Your task to perform on an android device: Go to Android settings Image 0: 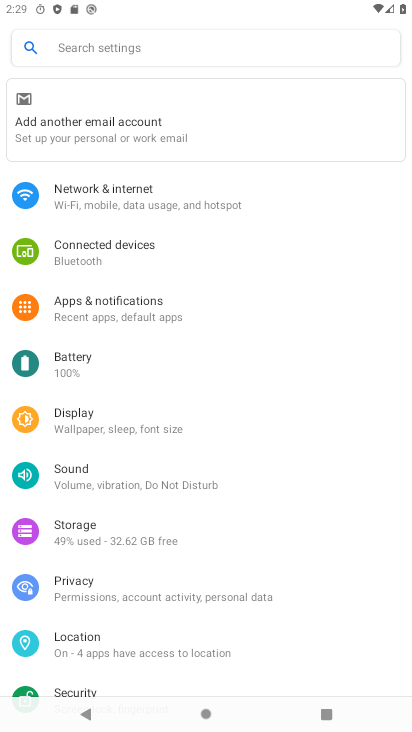
Step 0: drag from (135, 423) to (124, 78)
Your task to perform on an android device: Go to Android settings Image 1: 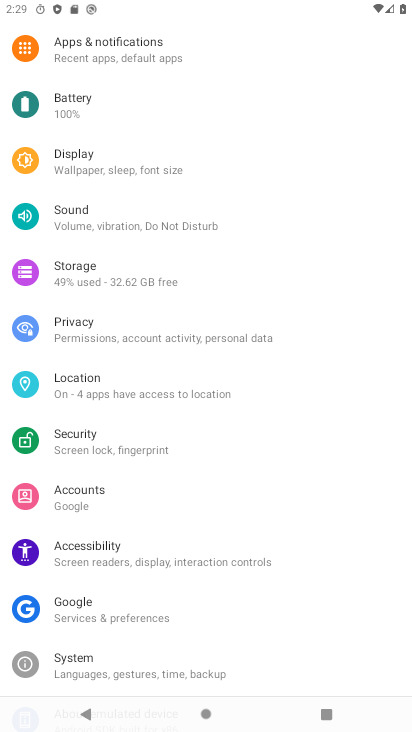
Step 1: drag from (142, 428) to (130, 111)
Your task to perform on an android device: Go to Android settings Image 2: 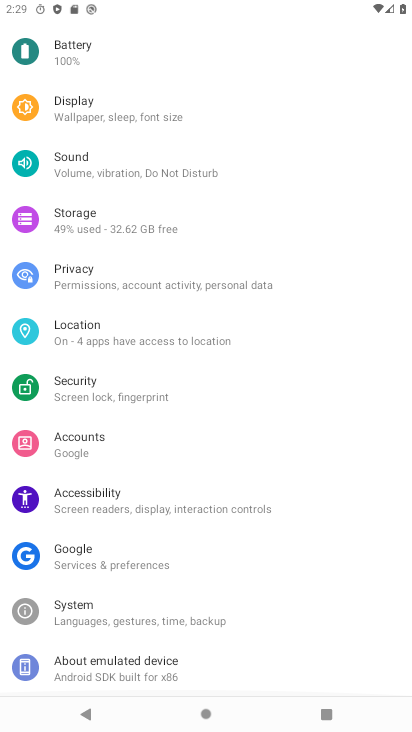
Step 2: drag from (137, 422) to (109, 24)
Your task to perform on an android device: Go to Android settings Image 3: 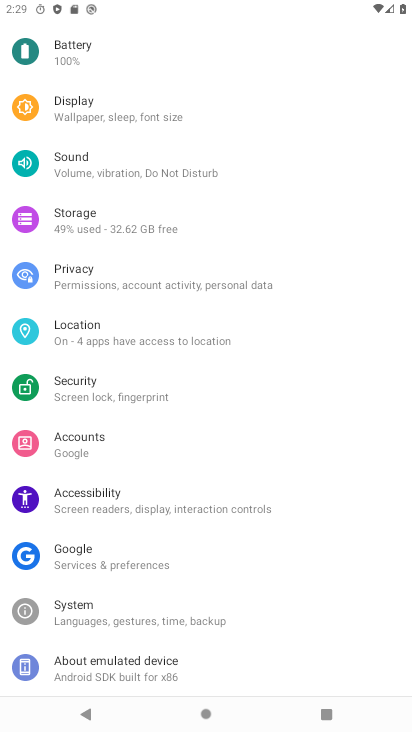
Step 3: drag from (149, 520) to (118, 110)
Your task to perform on an android device: Go to Android settings Image 4: 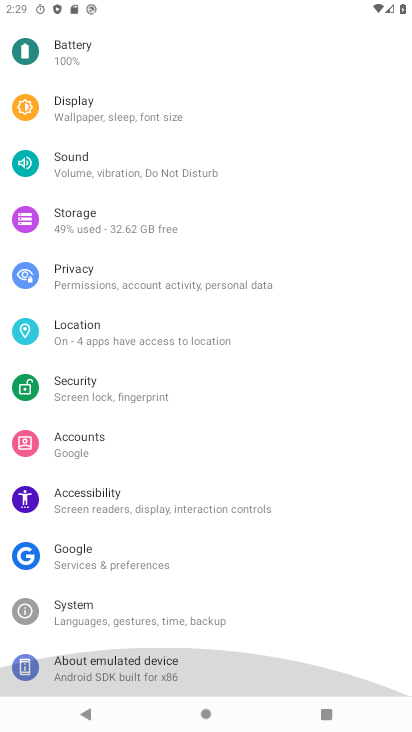
Step 4: drag from (144, 453) to (75, 76)
Your task to perform on an android device: Go to Android settings Image 5: 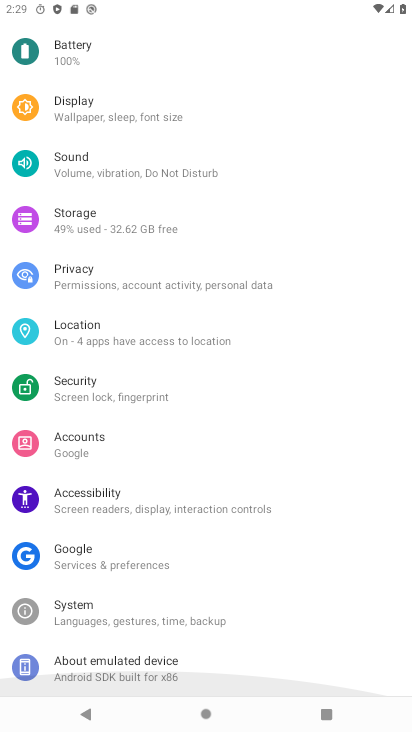
Step 5: drag from (155, 416) to (125, 162)
Your task to perform on an android device: Go to Android settings Image 6: 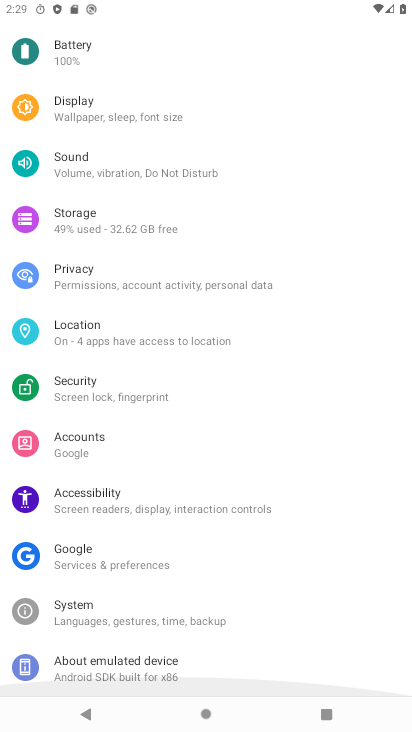
Step 6: drag from (130, 373) to (90, 91)
Your task to perform on an android device: Go to Android settings Image 7: 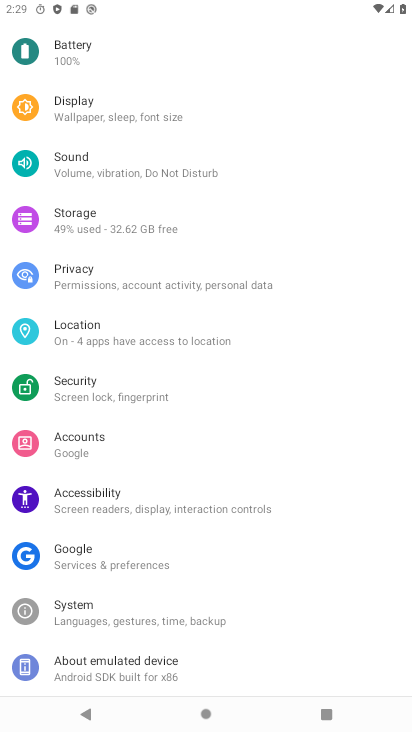
Step 7: drag from (104, 399) to (128, 140)
Your task to perform on an android device: Go to Android settings Image 8: 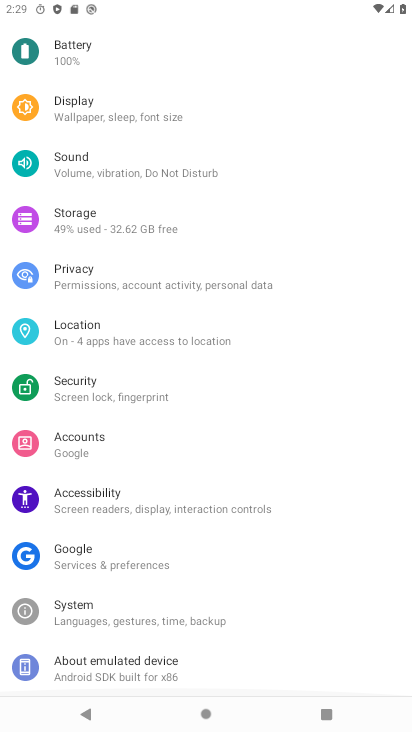
Step 8: drag from (156, 476) to (136, 216)
Your task to perform on an android device: Go to Android settings Image 9: 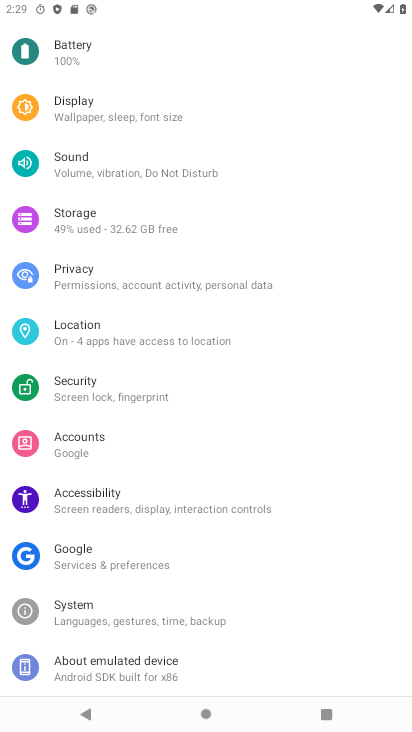
Step 9: click (94, 656)
Your task to perform on an android device: Go to Android settings Image 10: 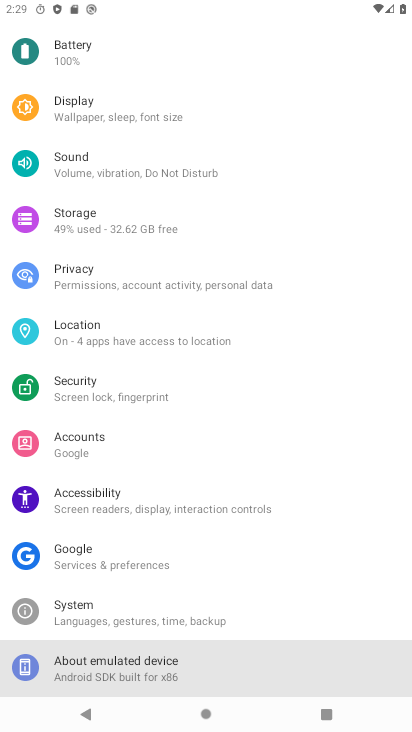
Step 10: click (94, 657)
Your task to perform on an android device: Go to Android settings Image 11: 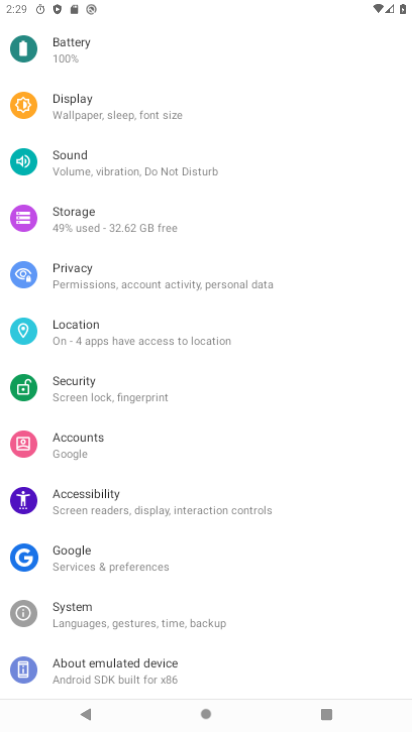
Step 11: click (94, 658)
Your task to perform on an android device: Go to Android settings Image 12: 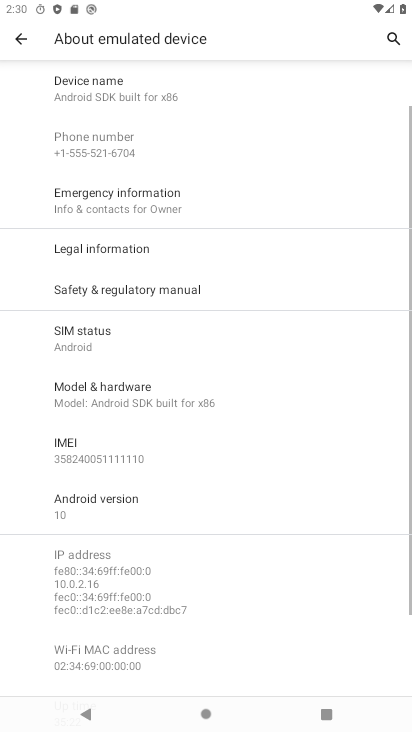
Step 12: task complete